Your task to perform on an android device: Go to Amazon Image 0: 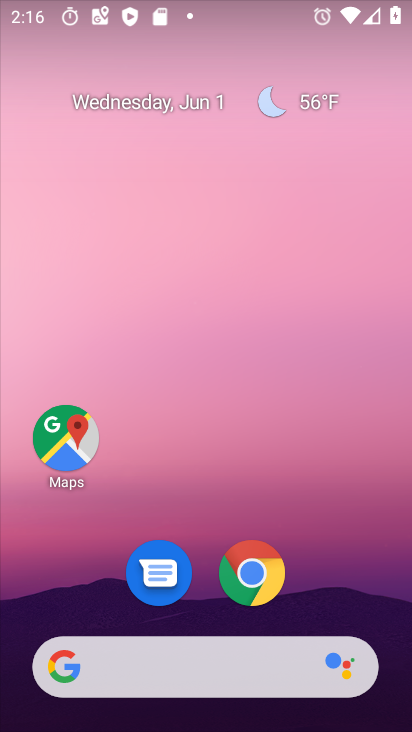
Step 0: drag from (330, 493) to (310, 75)
Your task to perform on an android device: Go to Amazon Image 1: 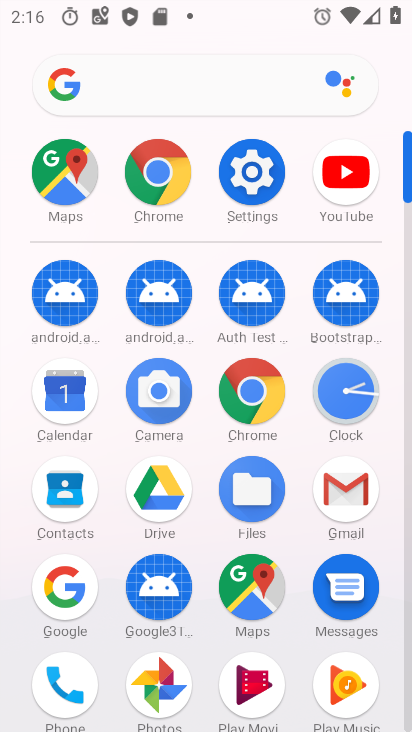
Step 1: click (156, 188)
Your task to perform on an android device: Go to Amazon Image 2: 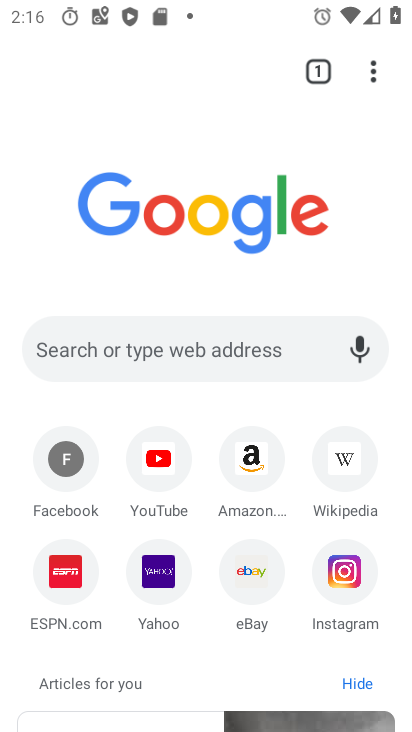
Step 2: click (255, 469)
Your task to perform on an android device: Go to Amazon Image 3: 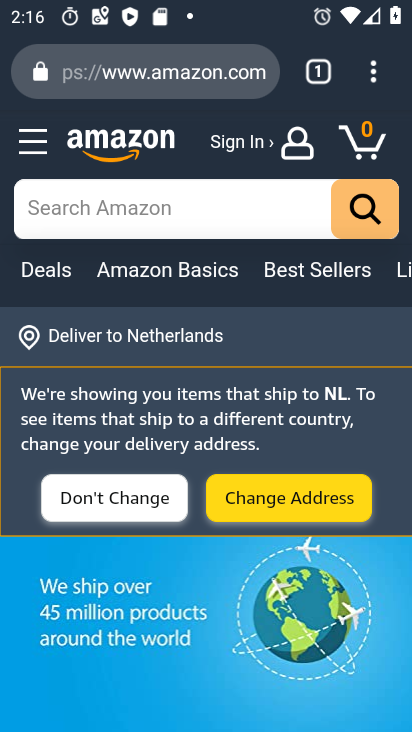
Step 3: task complete